Your task to perform on an android device: change timer sound Image 0: 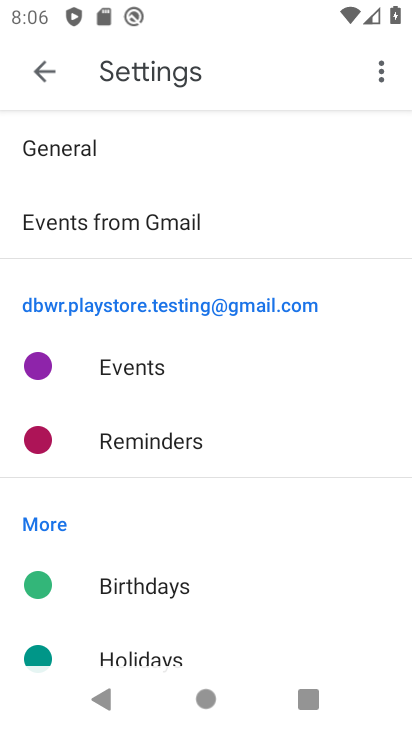
Step 0: press home button
Your task to perform on an android device: change timer sound Image 1: 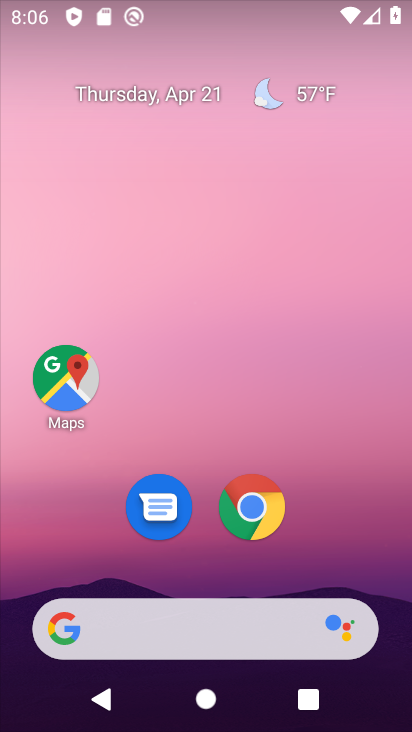
Step 1: drag from (318, 428) to (310, 18)
Your task to perform on an android device: change timer sound Image 2: 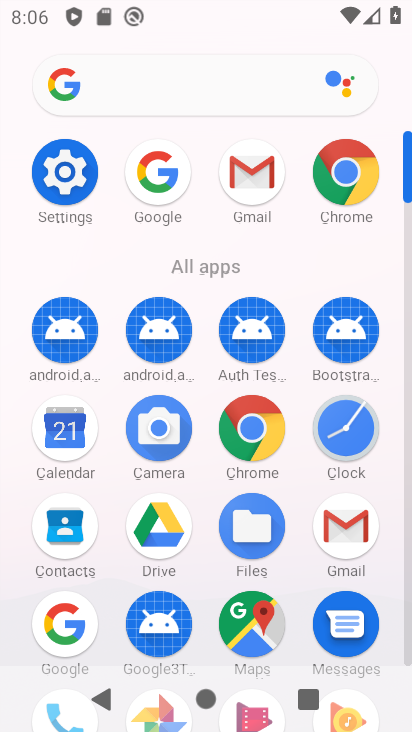
Step 2: click (357, 440)
Your task to perform on an android device: change timer sound Image 3: 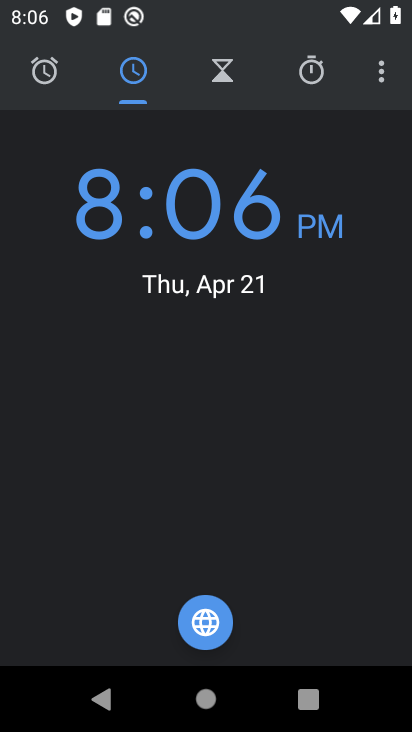
Step 3: click (378, 80)
Your task to perform on an android device: change timer sound Image 4: 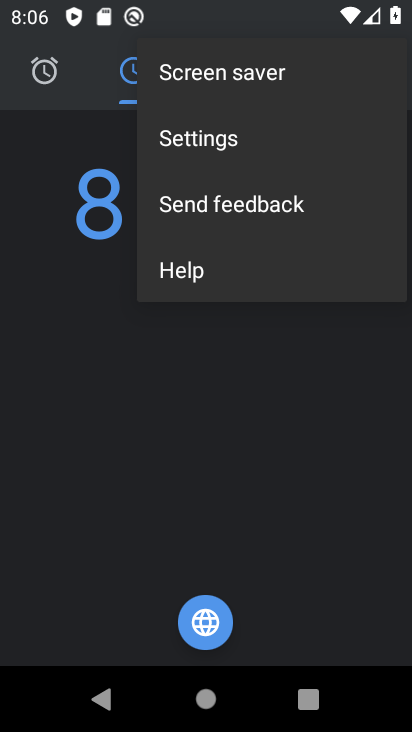
Step 4: click (290, 128)
Your task to perform on an android device: change timer sound Image 5: 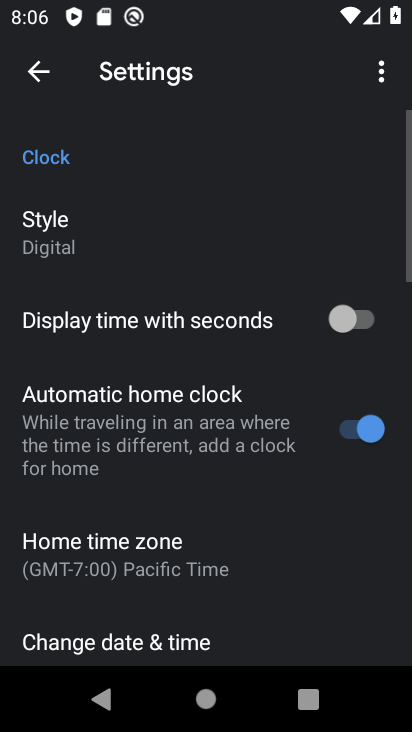
Step 5: drag from (263, 565) to (297, 85)
Your task to perform on an android device: change timer sound Image 6: 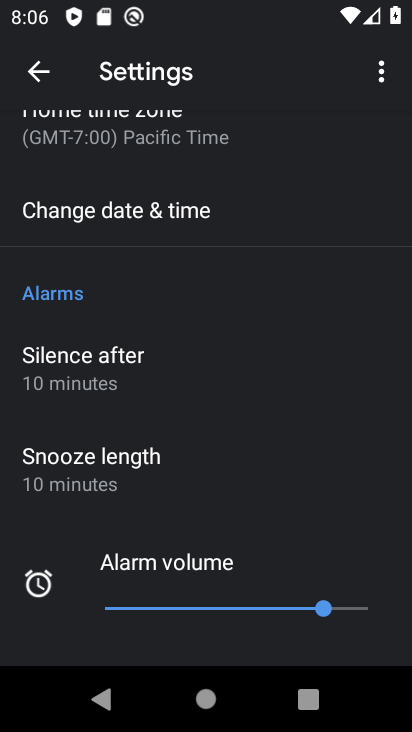
Step 6: drag from (323, 525) to (304, 175)
Your task to perform on an android device: change timer sound Image 7: 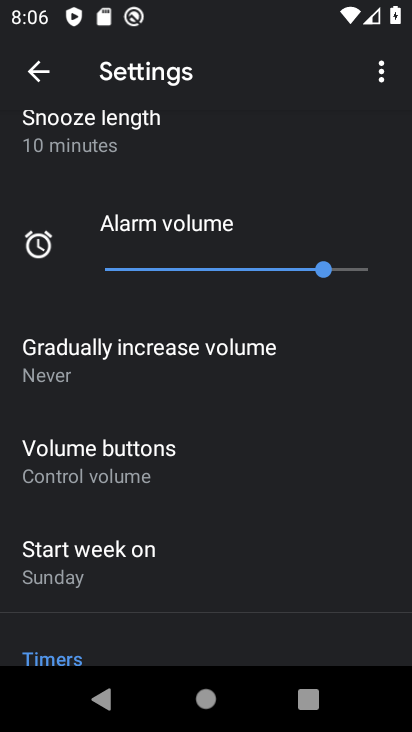
Step 7: drag from (277, 549) to (306, 290)
Your task to perform on an android device: change timer sound Image 8: 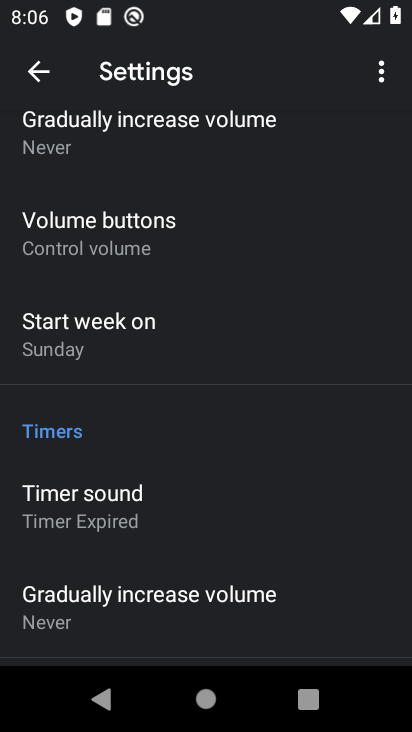
Step 8: click (65, 514)
Your task to perform on an android device: change timer sound Image 9: 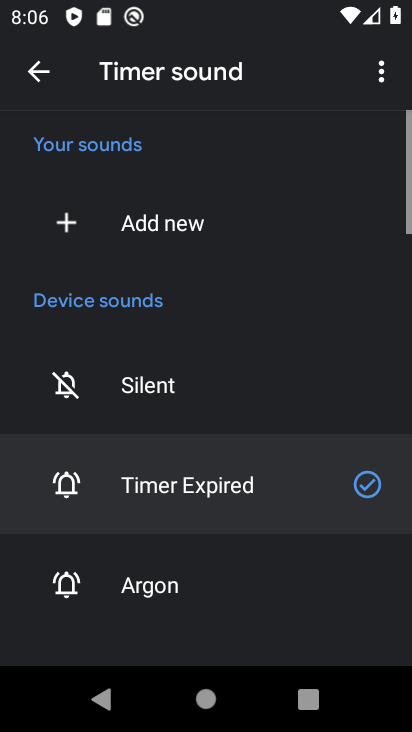
Step 9: click (91, 596)
Your task to perform on an android device: change timer sound Image 10: 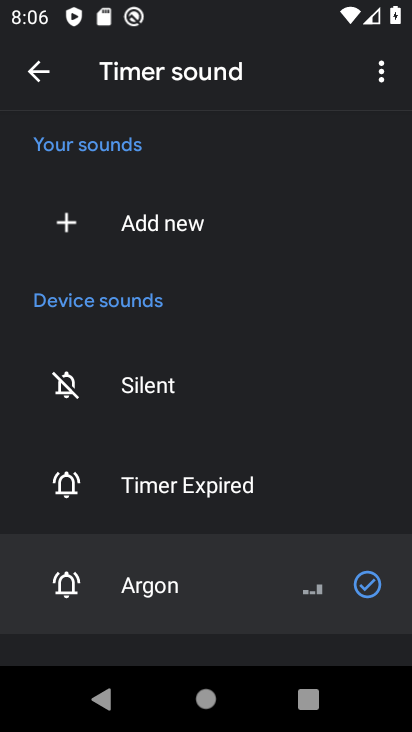
Step 10: task complete